Your task to perform on an android device: What is the recent news? Image 0: 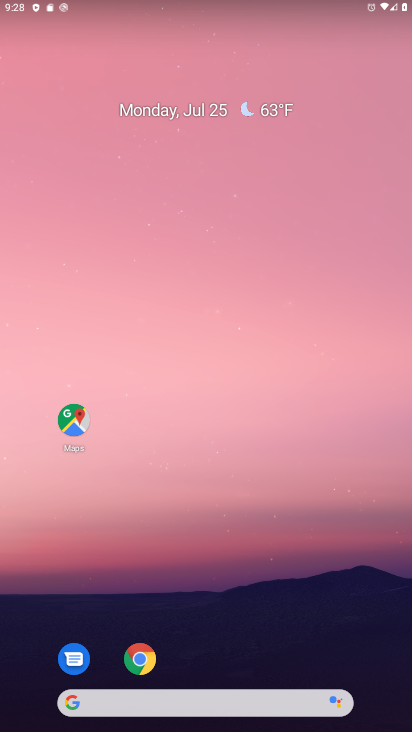
Step 0: drag from (147, 719) to (247, 368)
Your task to perform on an android device: What is the recent news? Image 1: 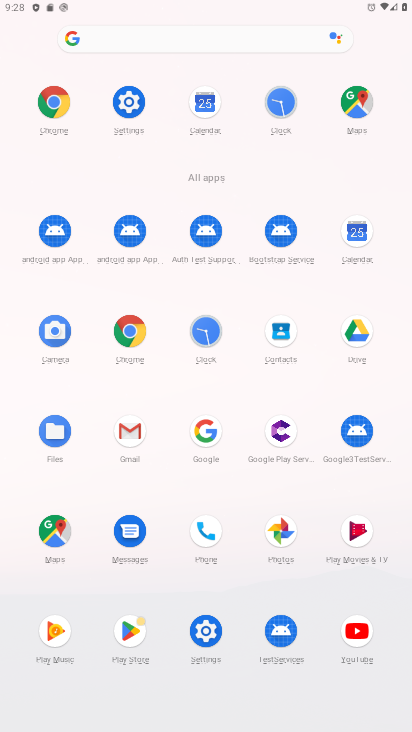
Step 1: click (200, 430)
Your task to perform on an android device: What is the recent news? Image 2: 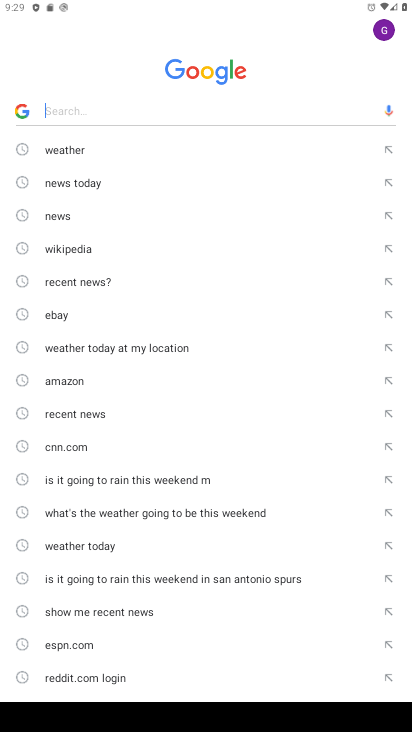
Step 2: click (62, 218)
Your task to perform on an android device: What is the recent news? Image 3: 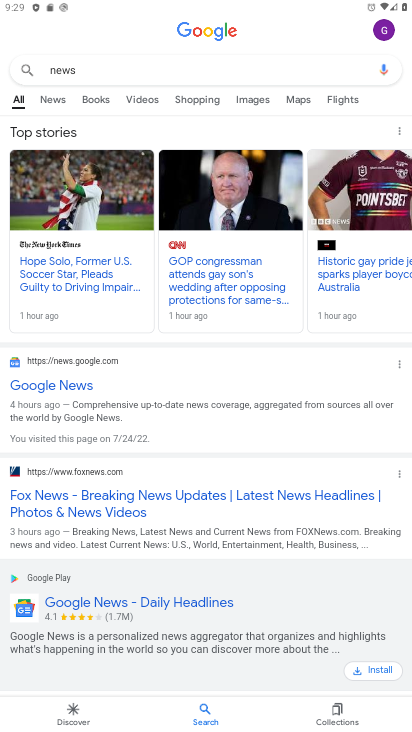
Step 3: task complete